Your task to perform on an android device: turn pop-ups on in chrome Image 0: 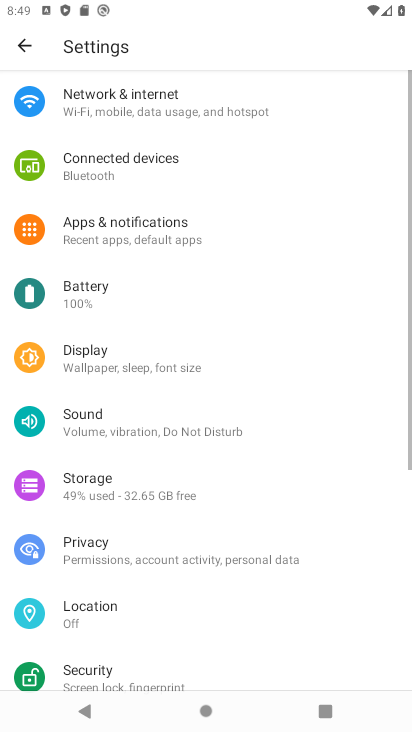
Step 0: press home button
Your task to perform on an android device: turn pop-ups on in chrome Image 1: 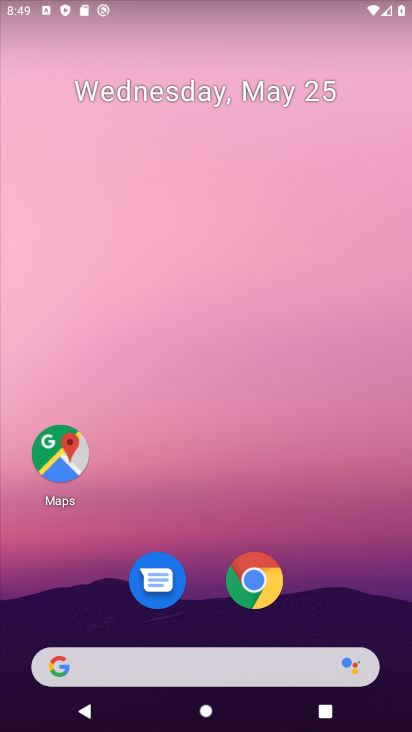
Step 1: click (246, 574)
Your task to perform on an android device: turn pop-ups on in chrome Image 2: 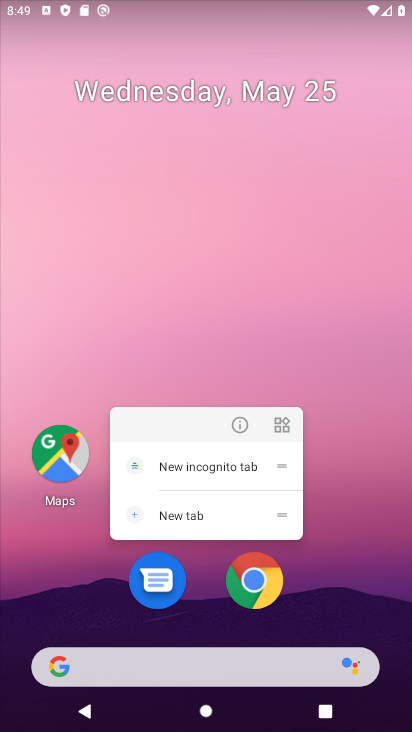
Step 2: click (259, 577)
Your task to perform on an android device: turn pop-ups on in chrome Image 3: 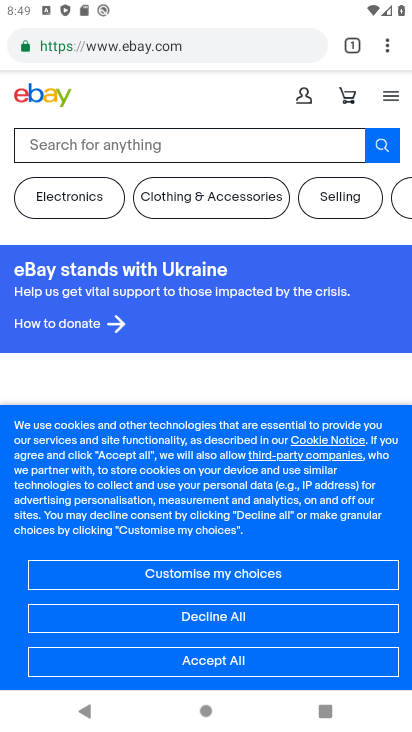
Step 3: click (388, 47)
Your task to perform on an android device: turn pop-ups on in chrome Image 4: 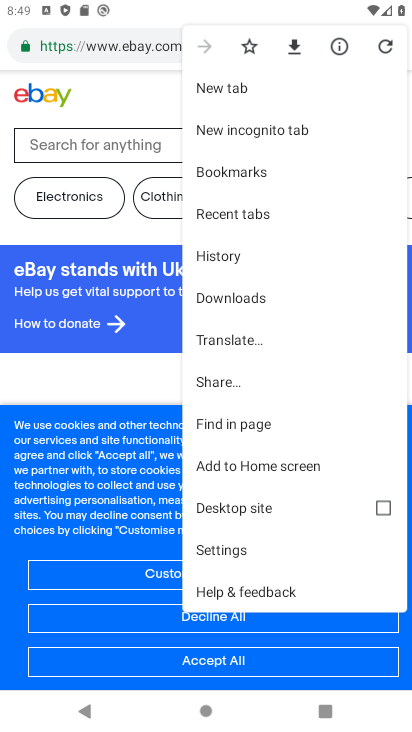
Step 4: click (228, 555)
Your task to perform on an android device: turn pop-ups on in chrome Image 5: 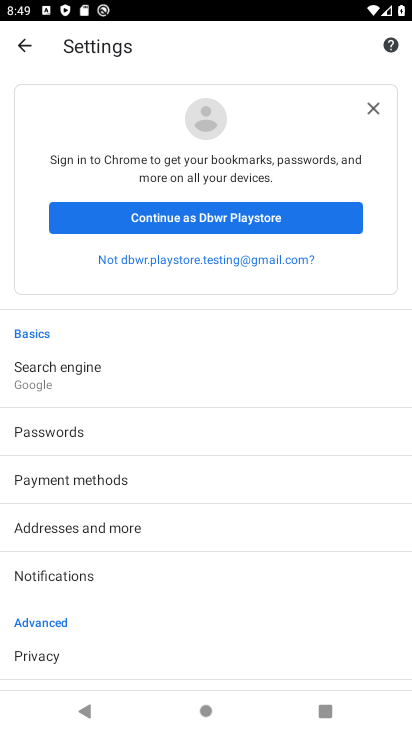
Step 5: drag from (3, 658) to (264, 164)
Your task to perform on an android device: turn pop-ups on in chrome Image 6: 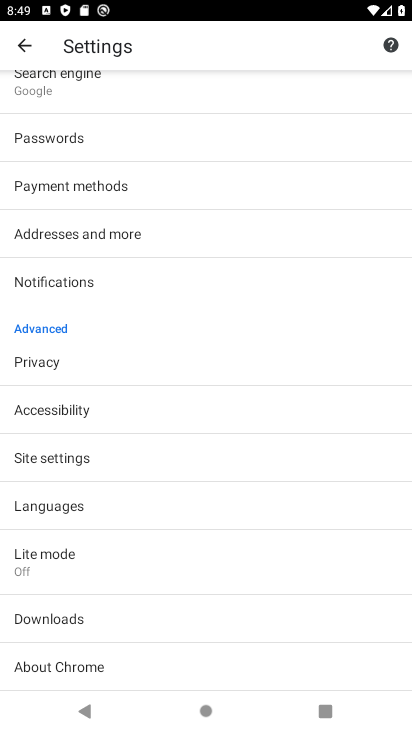
Step 6: click (98, 471)
Your task to perform on an android device: turn pop-ups on in chrome Image 7: 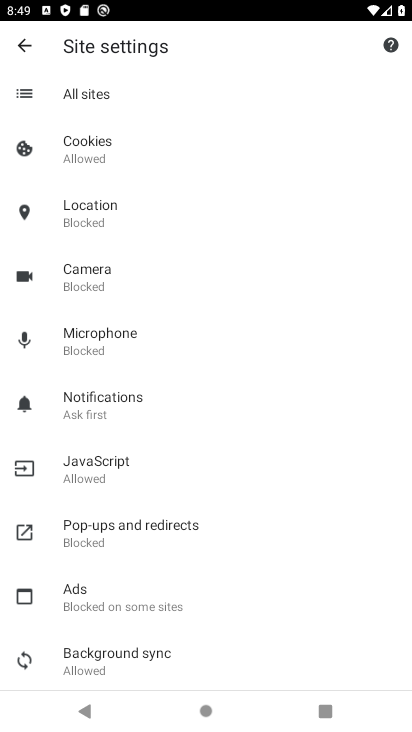
Step 7: click (170, 533)
Your task to perform on an android device: turn pop-ups on in chrome Image 8: 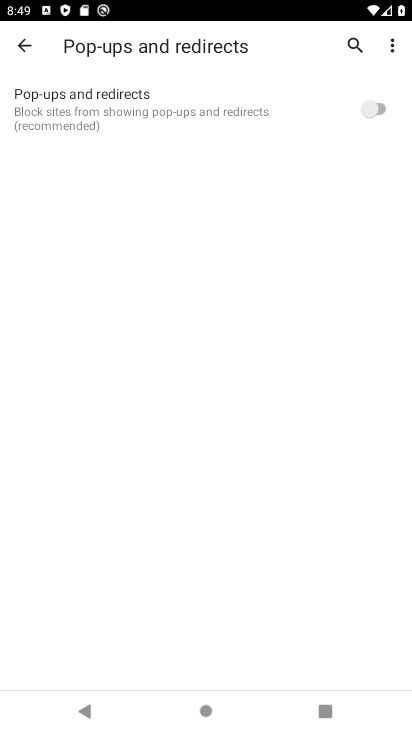
Step 8: click (365, 103)
Your task to perform on an android device: turn pop-ups on in chrome Image 9: 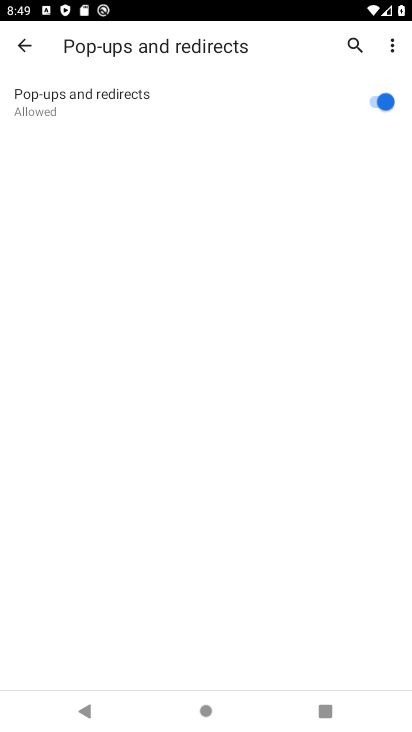
Step 9: task complete